Your task to perform on an android device: toggle notification dots Image 0: 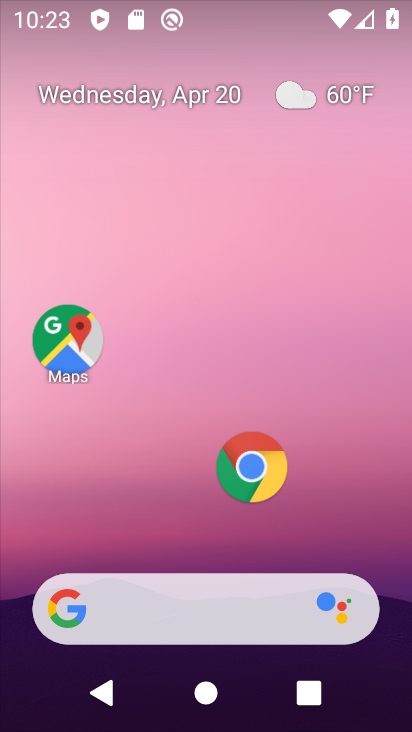
Step 0: drag from (324, 540) to (287, 50)
Your task to perform on an android device: toggle notification dots Image 1: 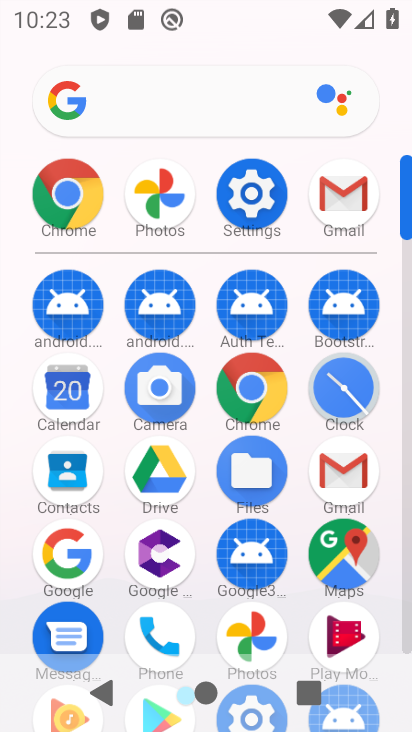
Step 1: click (243, 205)
Your task to perform on an android device: toggle notification dots Image 2: 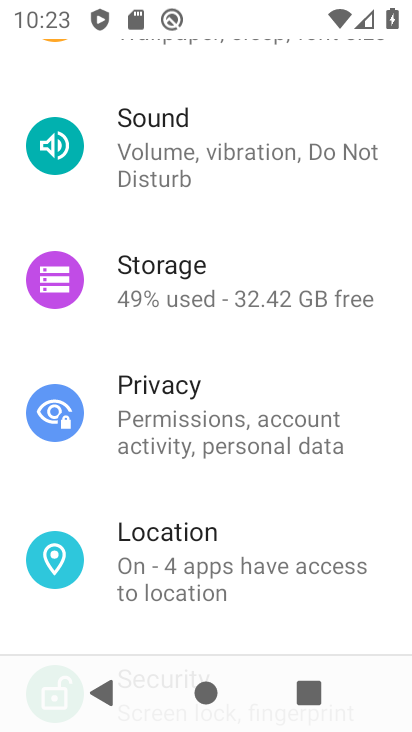
Step 2: drag from (205, 362) to (200, 460)
Your task to perform on an android device: toggle notification dots Image 3: 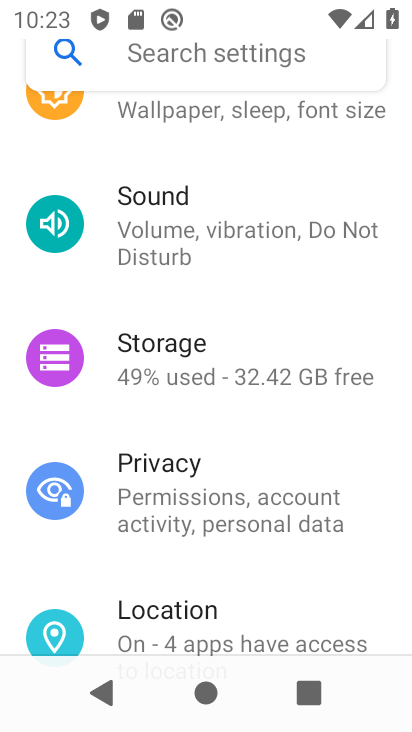
Step 3: drag from (214, 363) to (255, 449)
Your task to perform on an android device: toggle notification dots Image 4: 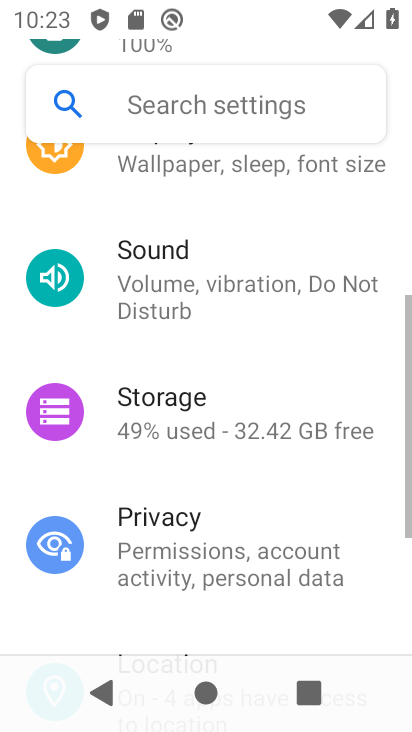
Step 4: drag from (213, 360) to (250, 452)
Your task to perform on an android device: toggle notification dots Image 5: 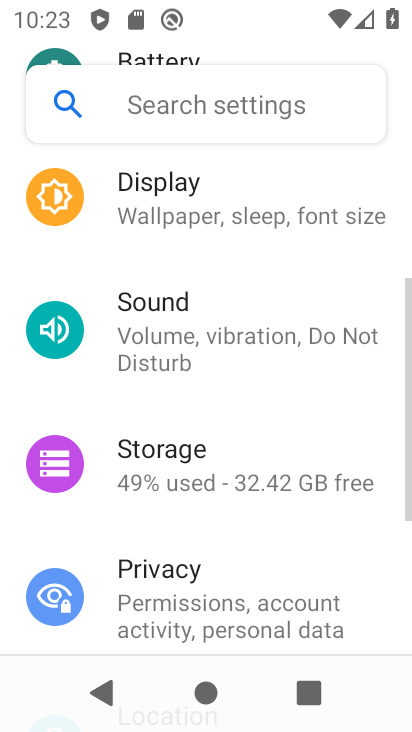
Step 5: drag from (242, 382) to (275, 465)
Your task to perform on an android device: toggle notification dots Image 6: 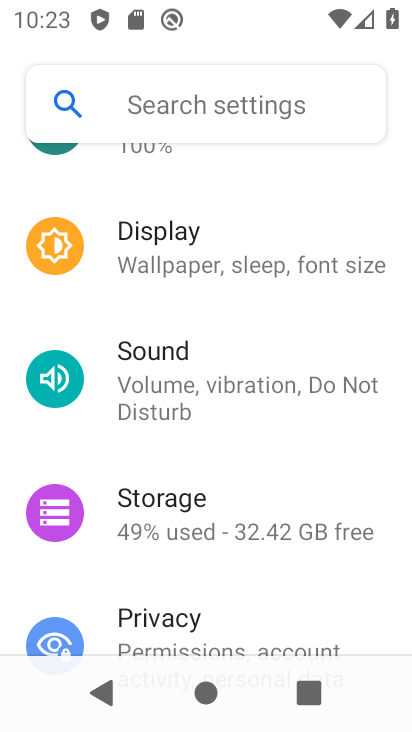
Step 6: drag from (257, 376) to (263, 449)
Your task to perform on an android device: toggle notification dots Image 7: 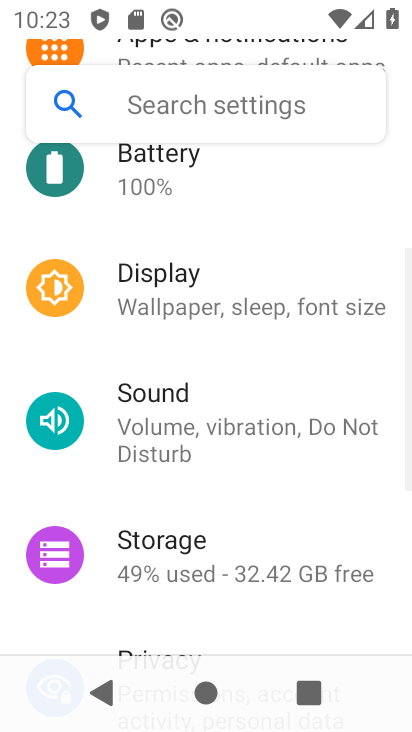
Step 7: drag from (296, 330) to (300, 415)
Your task to perform on an android device: toggle notification dots Image 8: 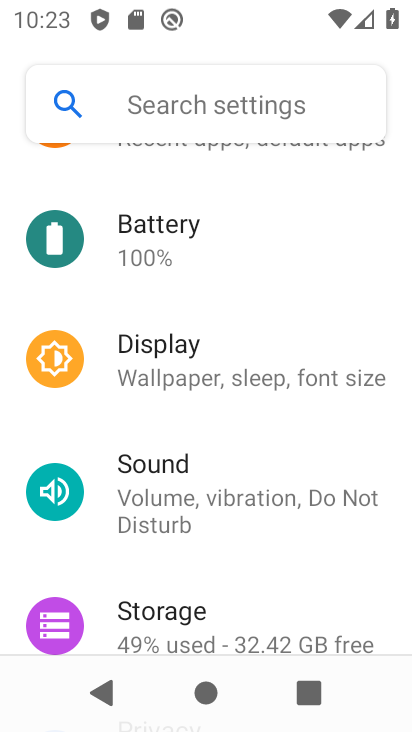
Step 8: drag from (274, 333) to (296, 416)
Your task to perform on an android device: toggle notification dots Image 9: 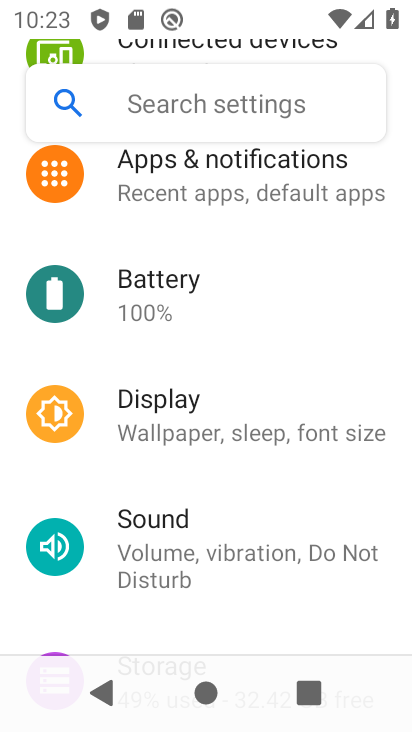
Step 9: drag from (273, 316) to (292, 396)
Your task to perform on an android device: toggle notification dots Image 10: 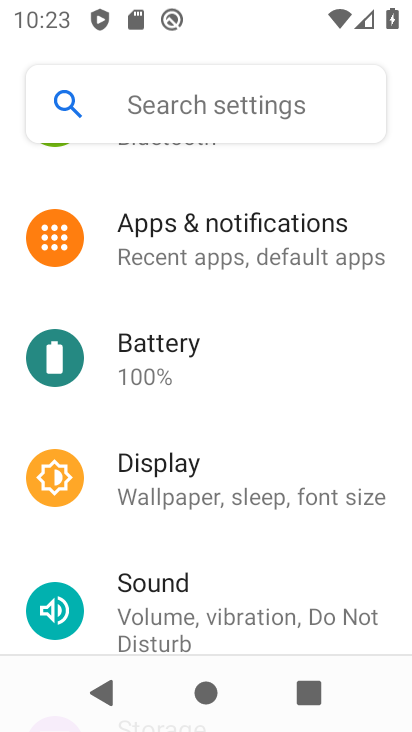
Step 10: click (248, 250)
Your task to perform on an android device: toggle notification dots Image 11: 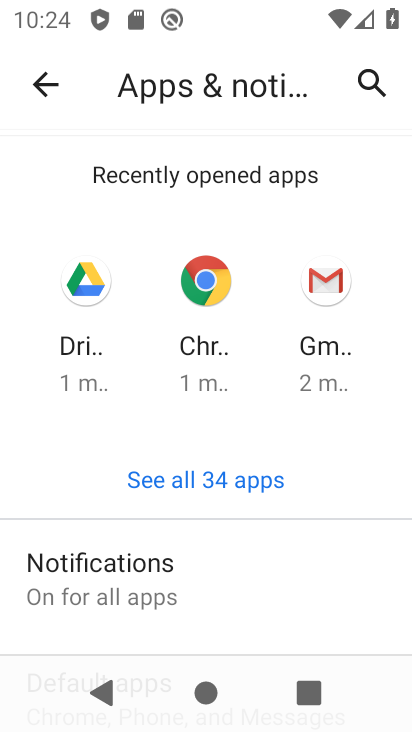
Step 11: click (200, 549)
Your task to perform on an android device: toggle notification dots Image 12: 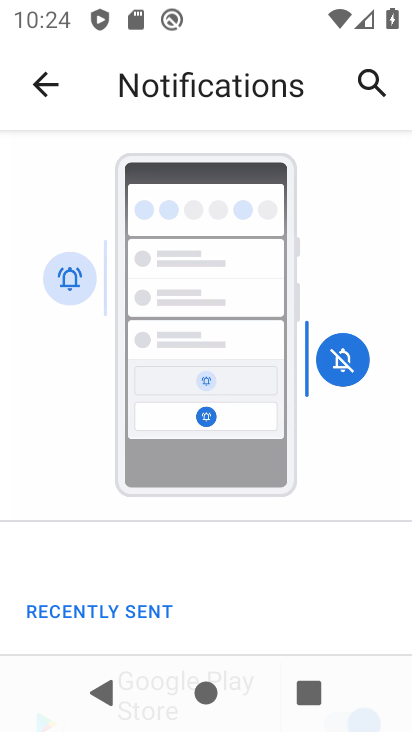
Step 12: drag from (191, 588) to (199, 461)
Your task to perform on an android device: toggle notification dots Image 13: 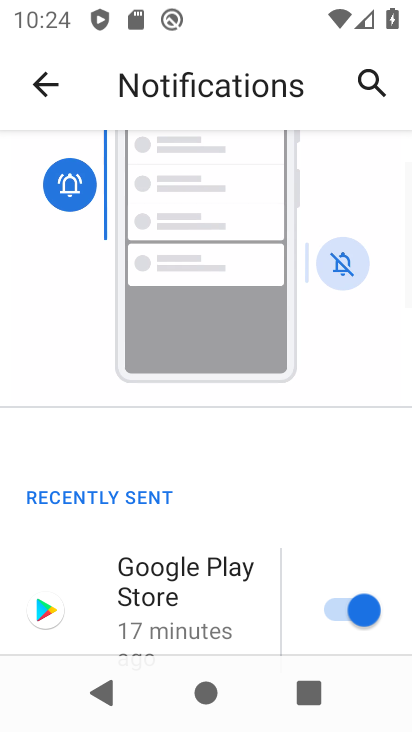
Step 13: drag from (213, 567) to (211, 445)
Your task to perform on an android device: toggle notification dots Image 14: 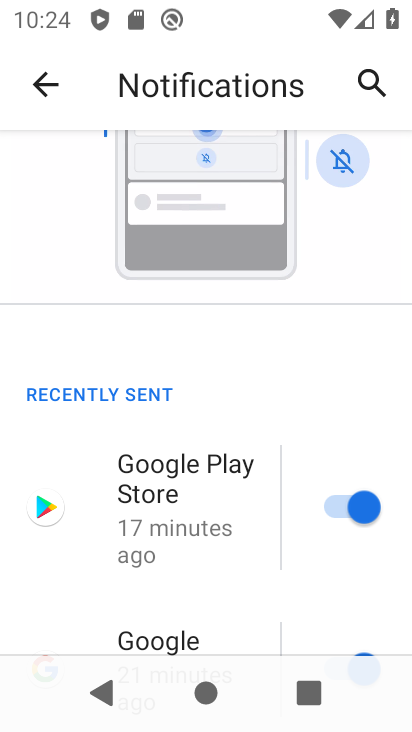
Step 14: drag from (232, 582) to (220, 452)
Your task to perform on an android device: toggle notification dots Image 15: 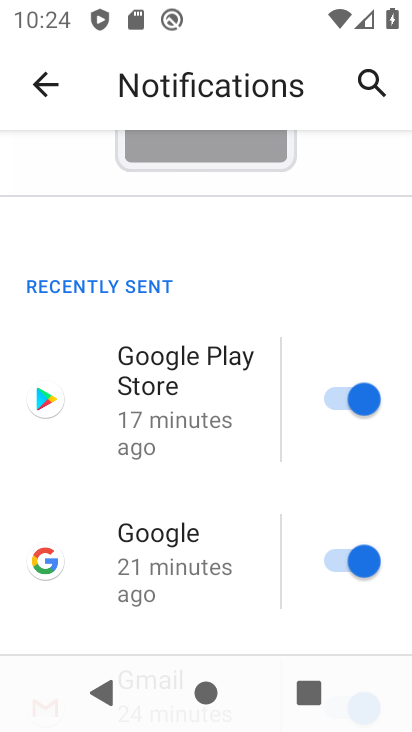
Step 15: drag from (230, 559) to (206, 423)
Your task to perform on an android device: toggle notification dots Image 16: 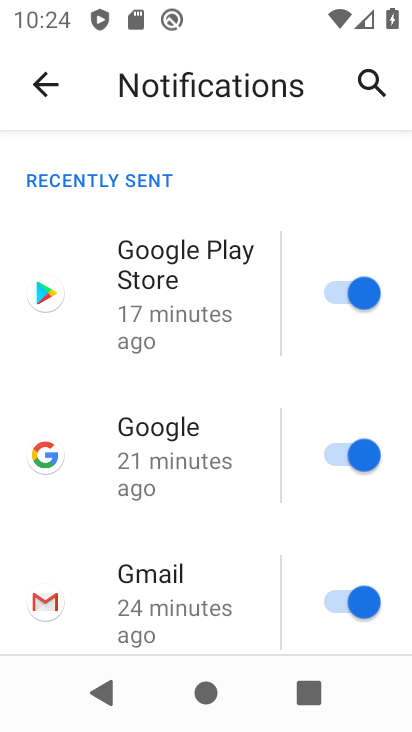
Step 16: drag from (204, 573) to (190, 456)
Your task to perform on an android device: toggle notification dots Image 17: 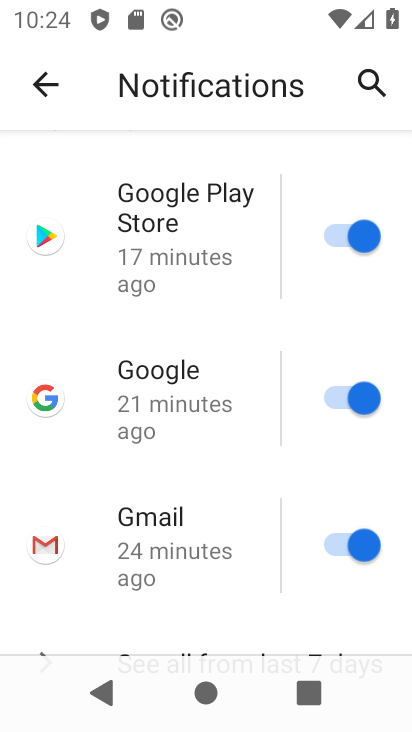
Step 17: drag from (178, 583) to (174, 433)
Your task to perform on an android device: toggle notification dots Image 18: 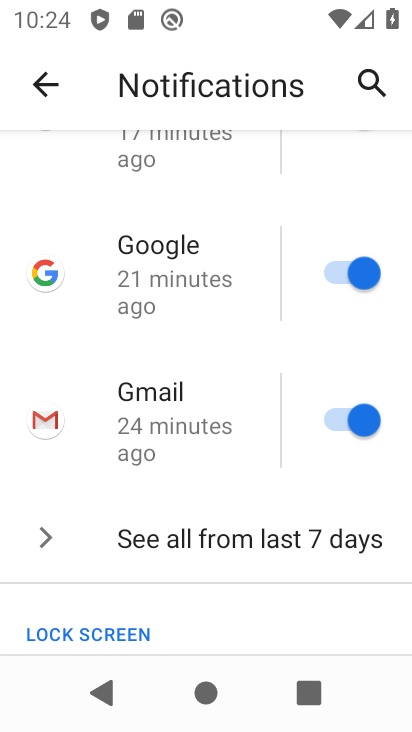
Step 18: drag from (194, 540) to (188, 435)
Your task to perform on an android device: toggle notification dots Image 19: 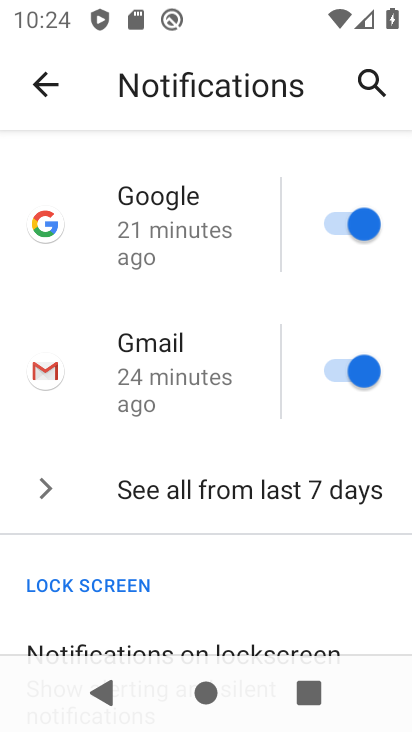
Step 19: drag from (200, 533) to (206, 411)
Your task to perform on an android device: toggle notification dots Image 20: 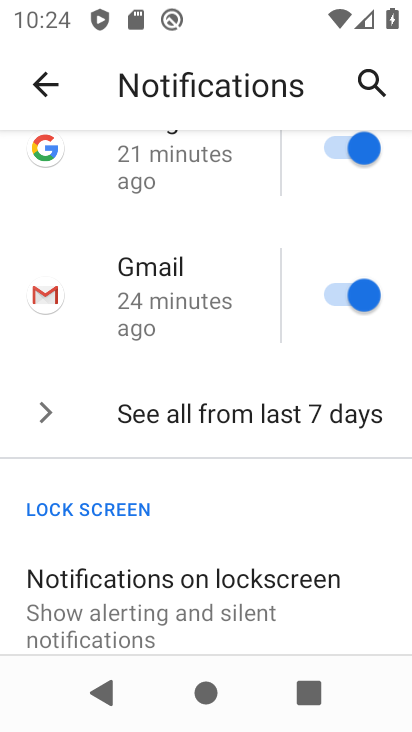
Step 20: drag from (225, 530) to (210, 411)
Your task to perform on an android device: toggle notification dots Image 21: 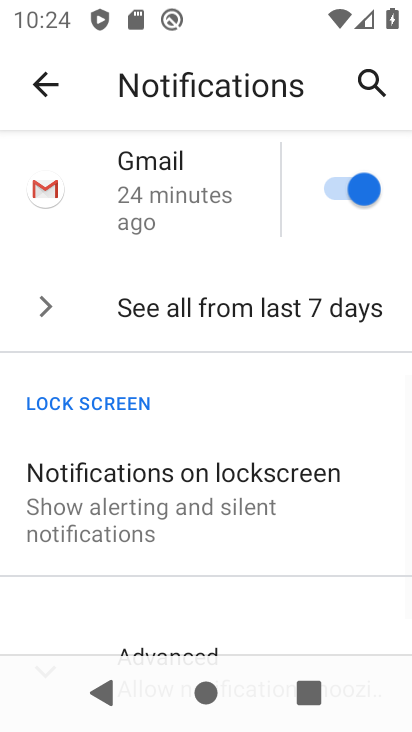
Step 21: drag from (228, 561) to (221, 467)
Your task to perform on an android device: toggle notification dots Image 22: 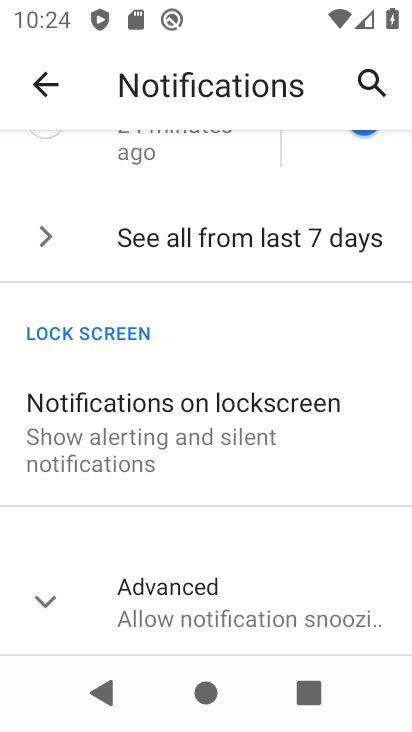
Step 22: drag from (224, 534) to (213, 446)
Your task to perform on an android device: toggle notification dots Image 23: 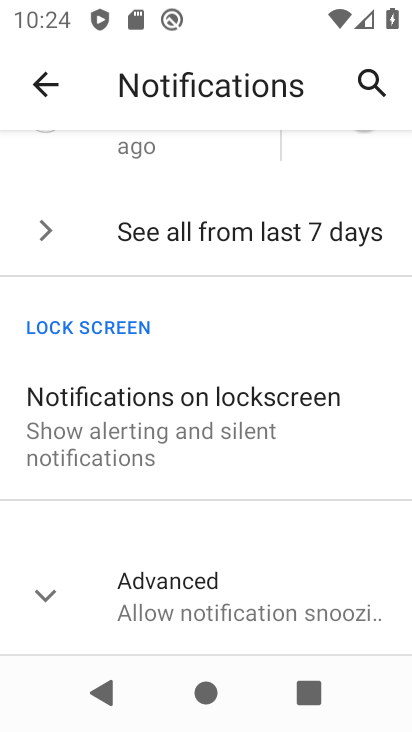
Step 23: click (221, 584)
Your task to perform on an android device: toggle notification dots Image 24: 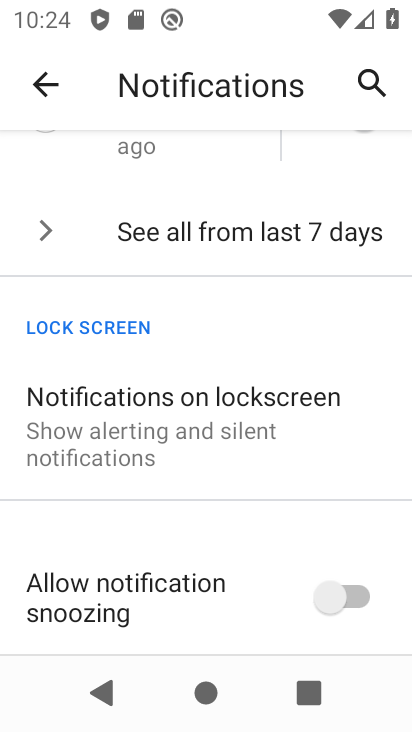
Step 24: drag from (150, 522) to (196, 338)
Your task to perform on an android device: toggle notification dots Image 25: 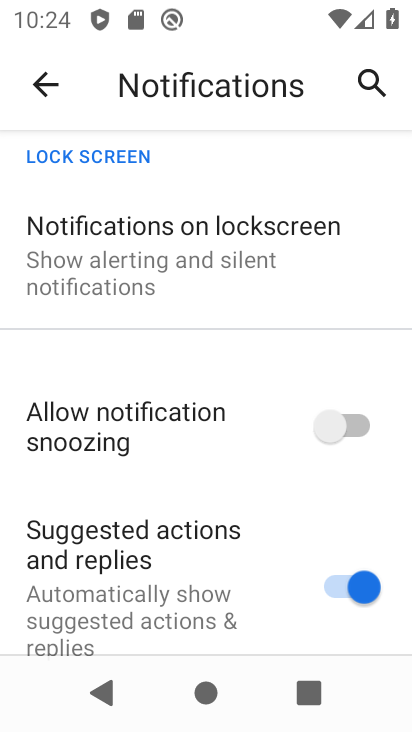
Step 25: drag from (178, 455) to (188, 331)
Your task to perform on an android device: toggle notification dots Image 26: 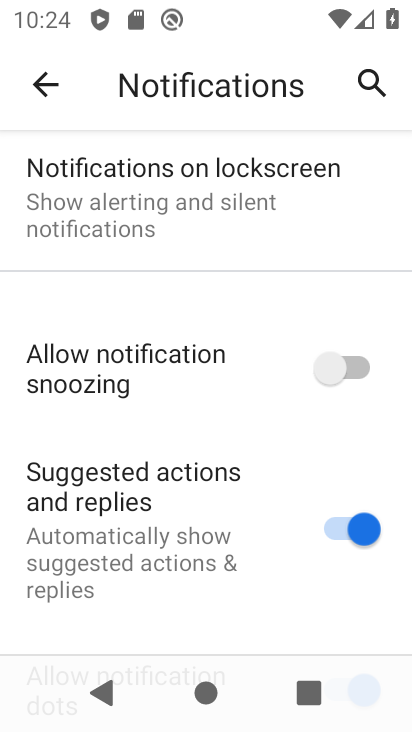
Step 26: drag from (155, 462) to (179, 356)
Your task to perform on an android device: toggle notification dots Image 27: 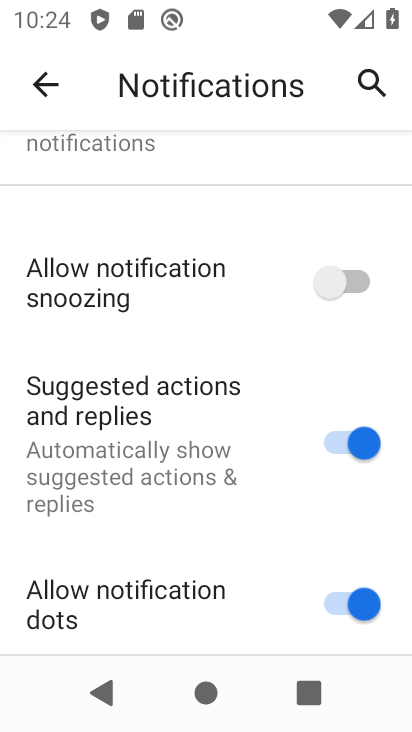
Step 27: drag from (182, 512) to (201, 428)
Your task to perform on an android device: toggle notification dots Image 28: 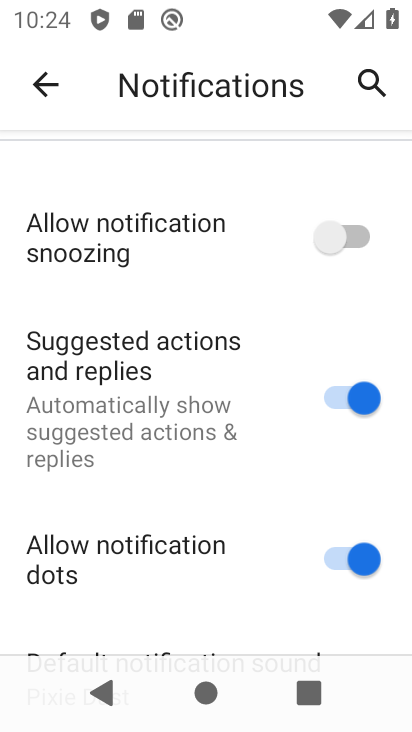
Step 28: click (325, 561)
Your task to perform on an android device: toggle notification dots Image 29: 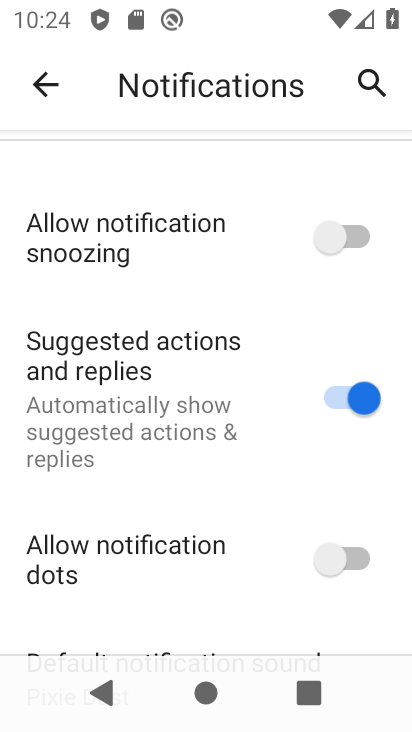
Step 29: task complete